Your task to perform on an android device: toggle translation in the chrome app Image 0: 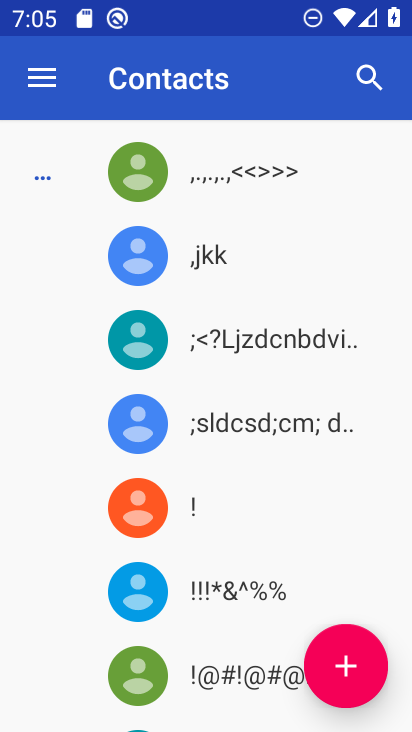
Step 0: press home button
Your task to perform on an android device: toggle translation in the chrome app Image 1: 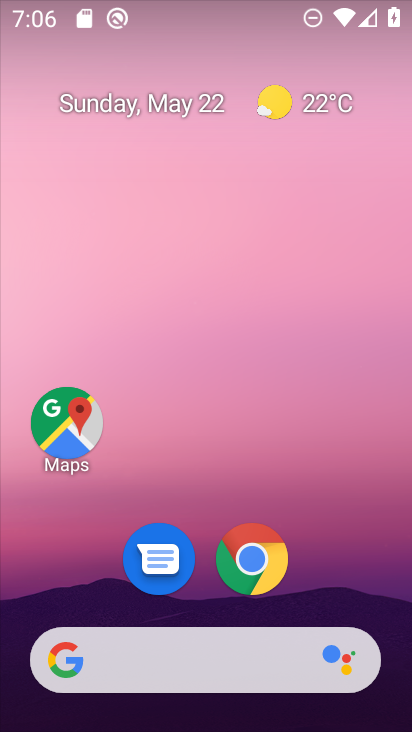
Step 1: drag from (211, 684) to (182, 199)
Your task to perform on an android device: toggle translation in the chrome app Image 2: 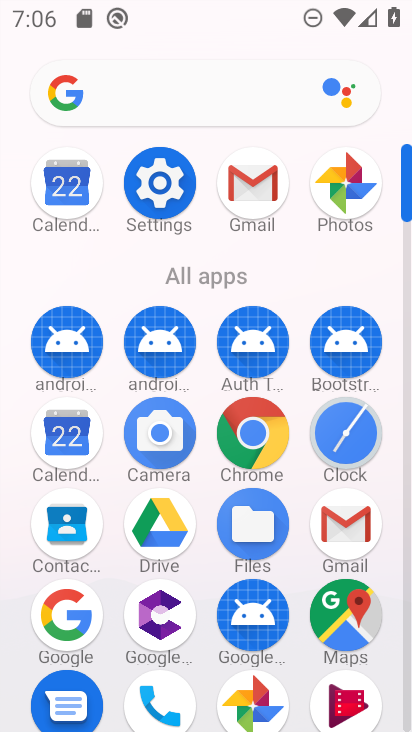
Step 2: click (265, 420)
Your task to perform on an android device: toggle translation in the chrome app Image 3: 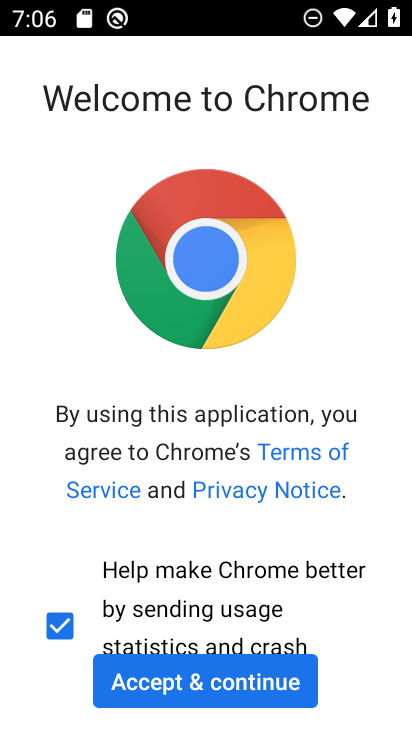
Step 3: click (206, 694)
Your task to perform on an android device: toggle translation in the chrome app Image 4: 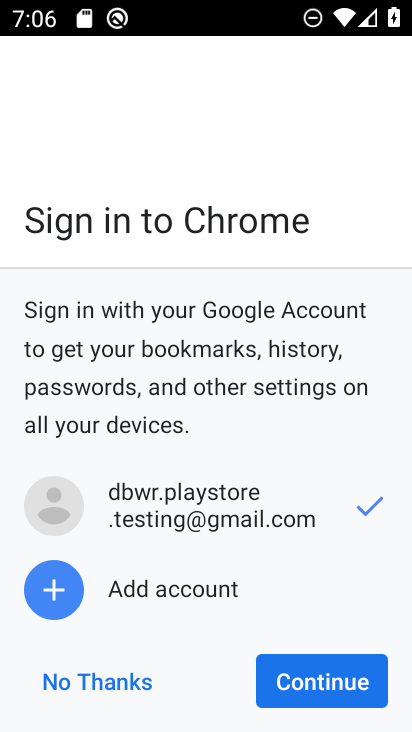
Step 4: click (281, 680)
Your task to perform on an android device: toggle translation in the chrome app Image 5: 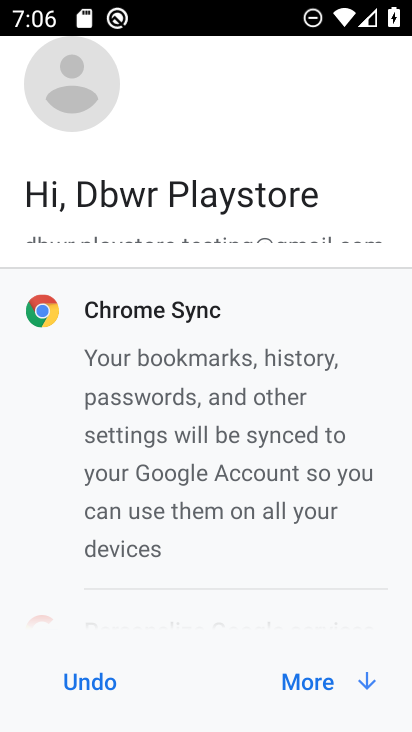
Step 5: click (363, 688)
Your task to perform on an android device: toggle translation in the chrome app Image 6: 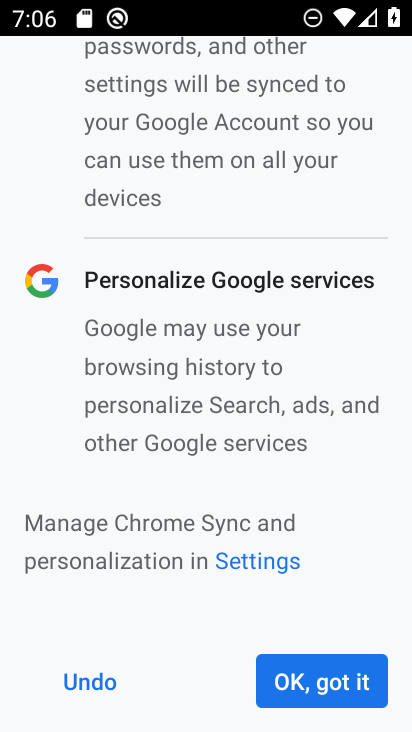
Step 6: click (310, 685)
Your task to perform on an android device: toggle translation in the chrome app Image 7: 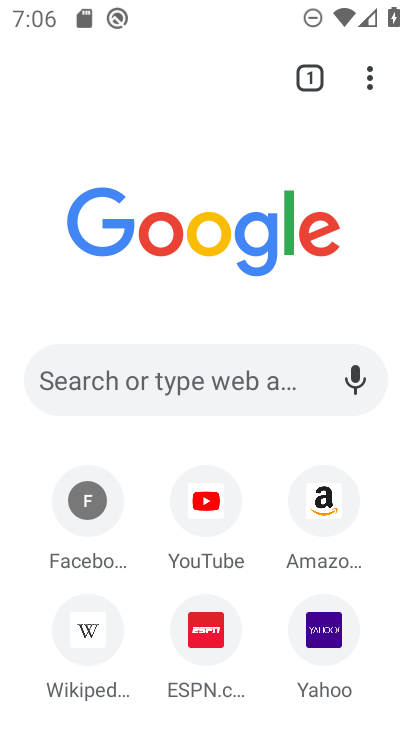
Step 7: click (369, 100)
Your task to perform on an android device: toggle translation in the chrome app Image 8: 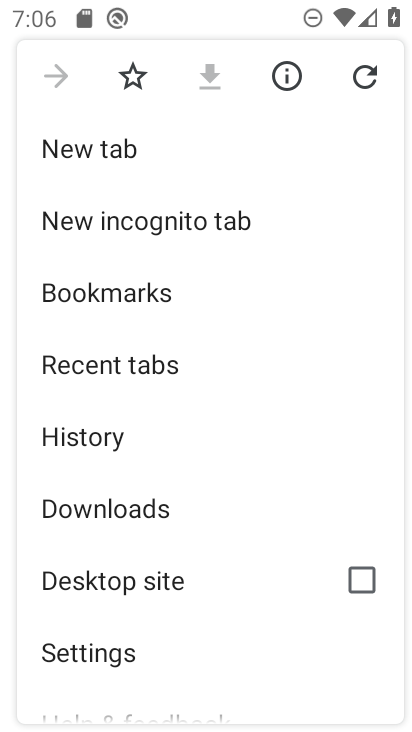
Step 8: click (159, 654)
Your task to perform on an android device: toggle translation in the chrome app Image 9: 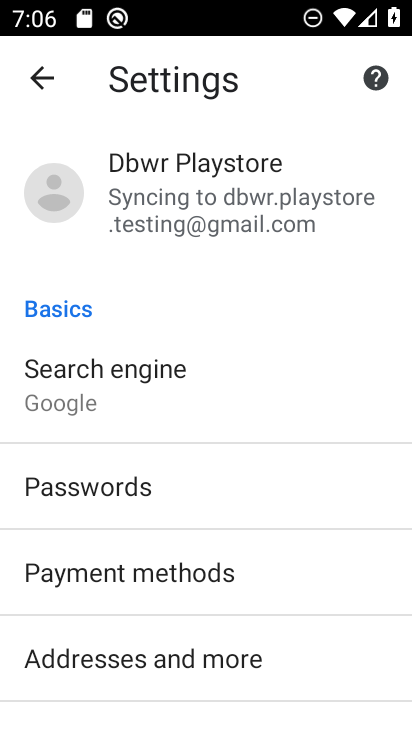
Step 9: drag from (158, 654) to (164, 402)
Your task to perform on an android device: toggle translation in the chrome app Image 10: 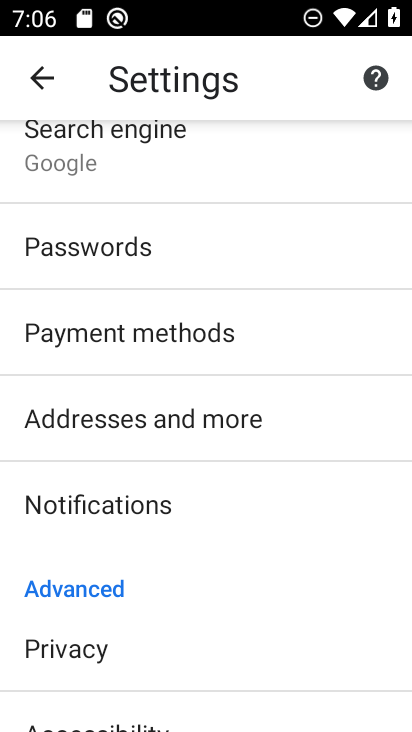
Step 10: drag from (70, 652) to (126, 339)
Your task to perform on an android device: toggle translation in the chrome app Image 11: 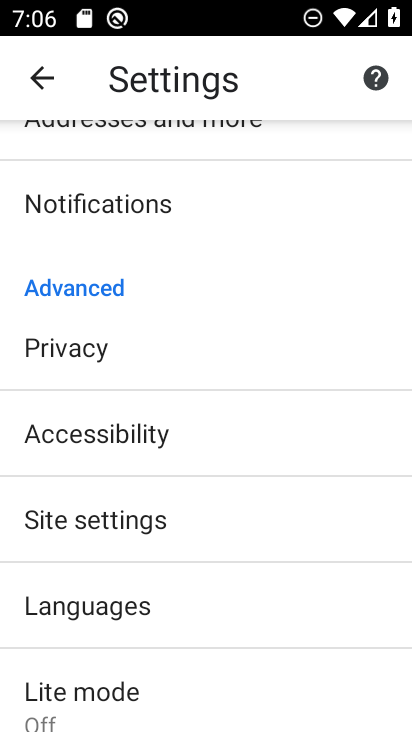
Step 11: drag from (163, 586) to (154, 496)
Your task to perform on an android device: toggle translation in the chrome app Image 12: 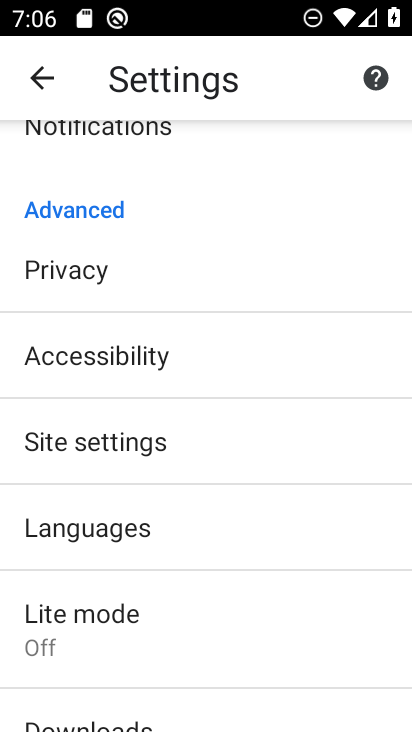
Step 12: click (145, 517)
Your task to perform on an android device: toggle translation in the chrome app Image 13: 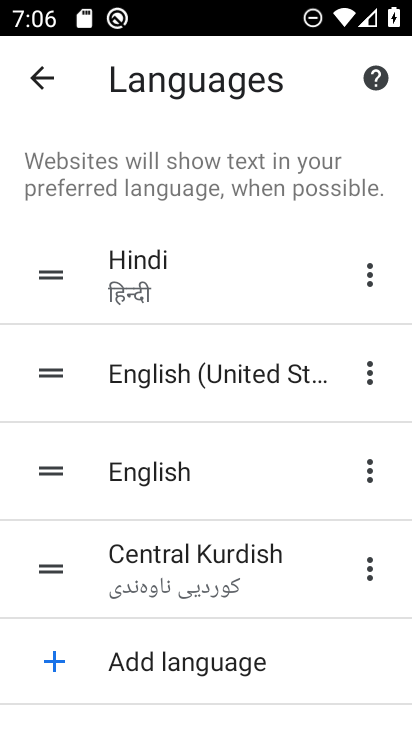
Step 13: task complete